Your task to perform on an android device: change notifications settings Image 0: 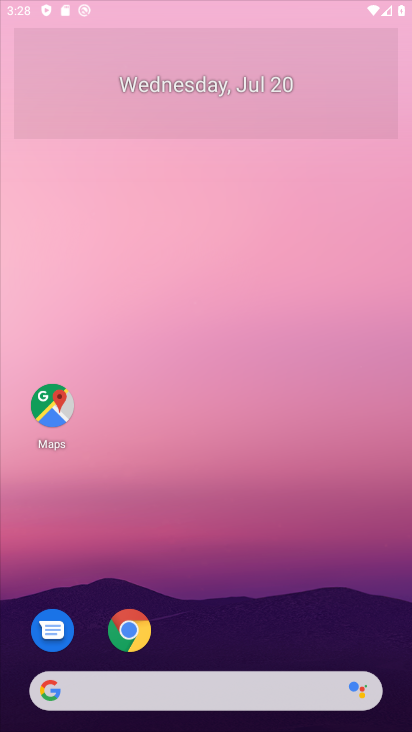
Step 0: press home button
Your task to perform on an android device: change notifications settings Image 1: 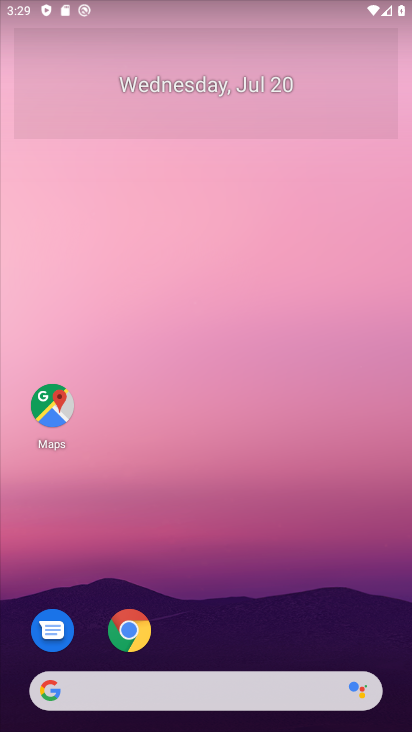
Step 1: drag from (279, 641) to (319, 38)
Your task to perform on an android device: change notifications settings Image 2: 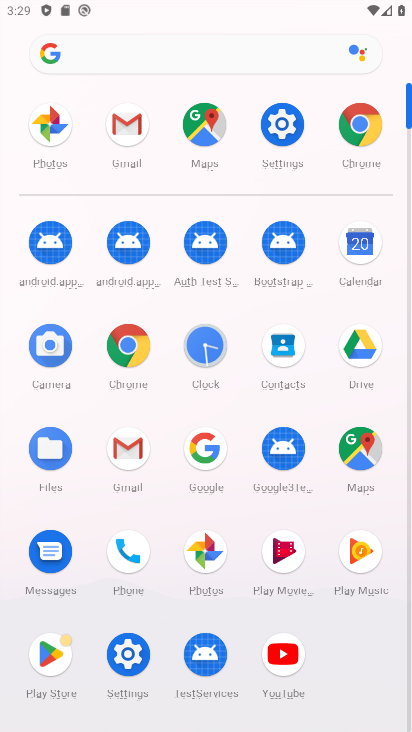
Step 2: click (277, 125)
Your task to perform on an android device: change notifications settings Image 3: 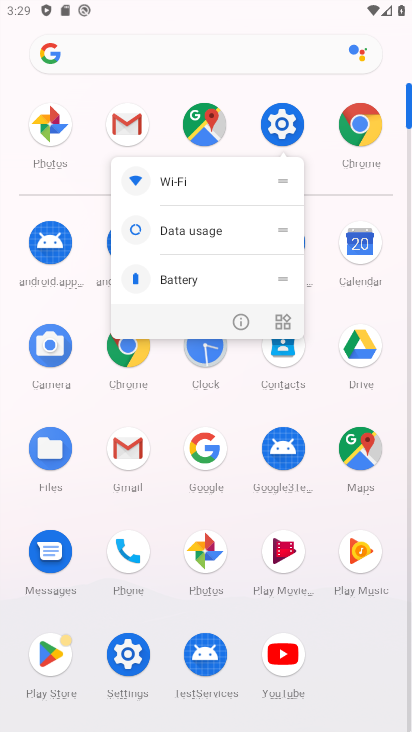
Step 3: click (277, 125)
Your task to perform on an android device: change notifications settings Image 4: 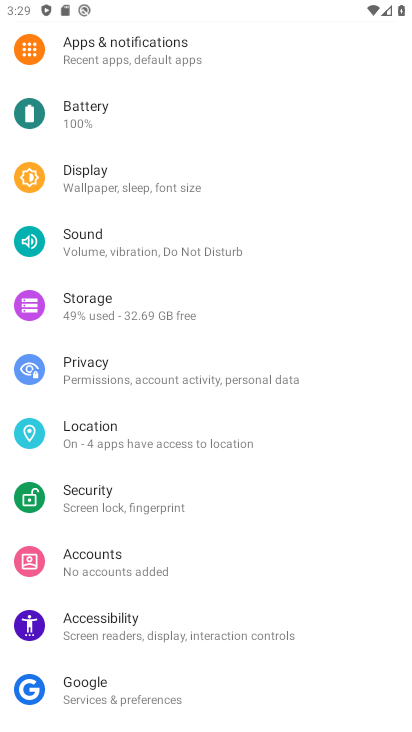
Step 4: click (124, 52)
Your task to perform on an android device: change notifications settings Image 5: 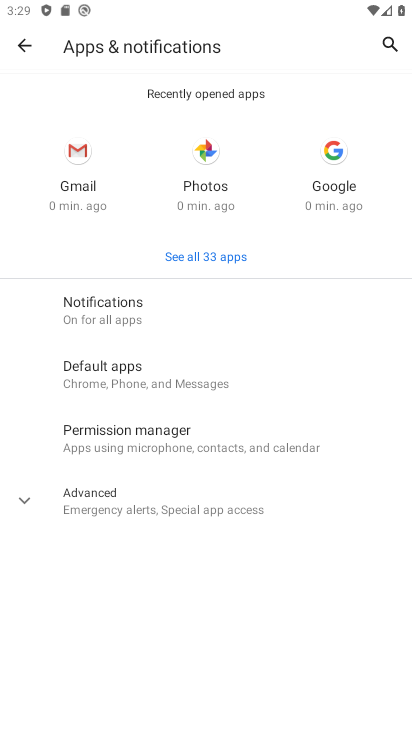
Step 5: click (107, 312)
Your task to perform on an android device: change notifications settings Image 6: 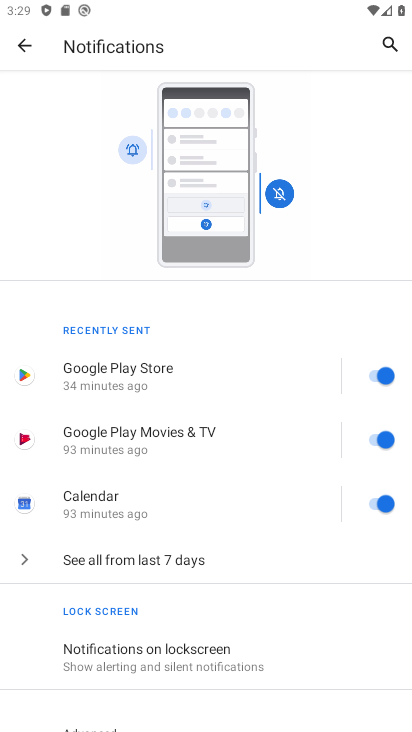
Step 6: click (157, 661)
Your task to perform on an android device: change notifications settings Image 7: 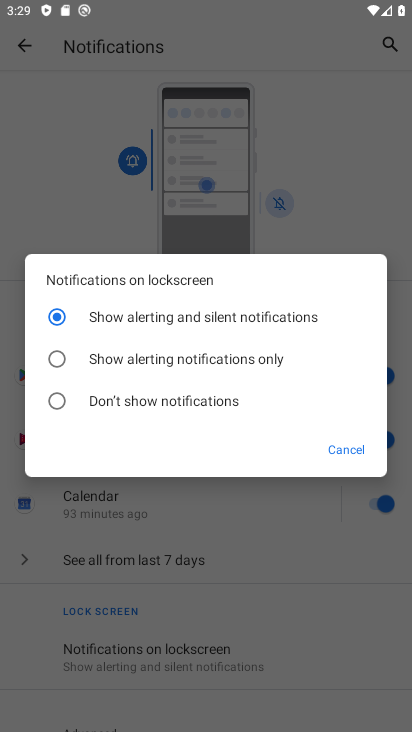
Step 7: click (59, 393)
Your task to perform on an android device: change notifications settings Image 8: 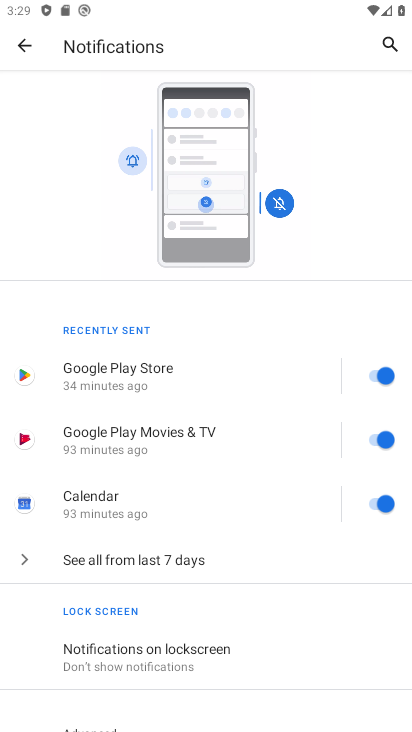
Step 8: task complete